Your task to perform on an android device: empty trash in the gmail app Image 0: 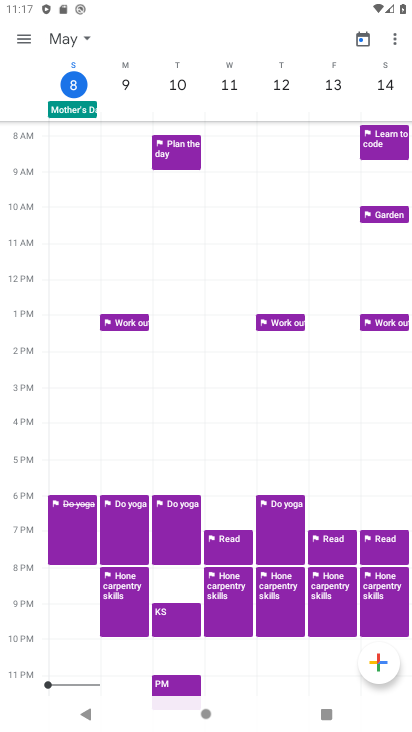
Step 0: press home button
Your task to perform on an android device: empty trash in the gmail app Image 1: 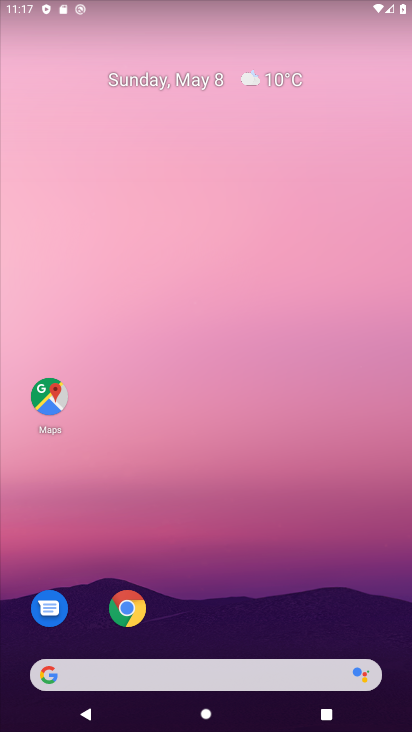
Step 1: drag from (190, 516) to (95, 49)
Your task to perform on an android device: empty trash in the gmail app Image 2: 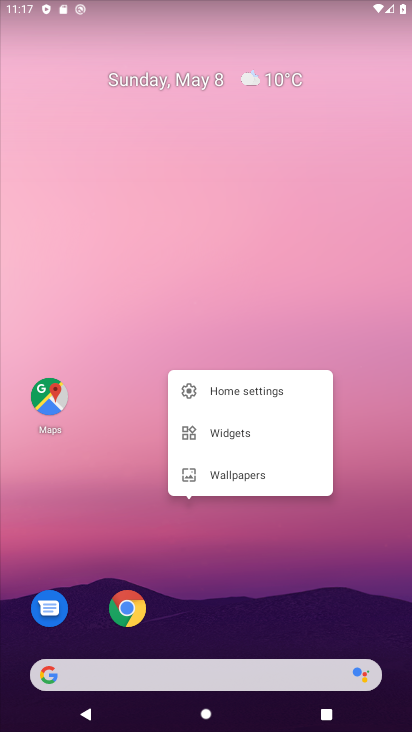
Step 2: click (220, 575)
Your task to perform on an android device: empty trash in the gmail app Image 3: 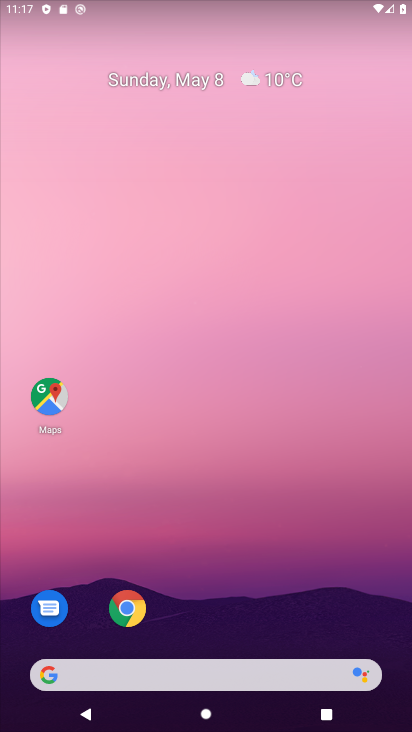
Step 3: drag from (220, 575) to (215, 71)
Your task to perform on an android device: empty trash in the gmail app Image 4: 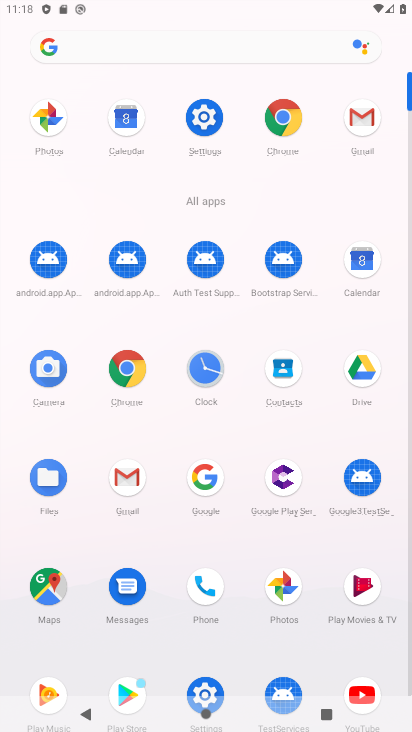
Step 4: click (357, 144)
Your task to perform on an android device: empty trash in the gmail app Image 5: 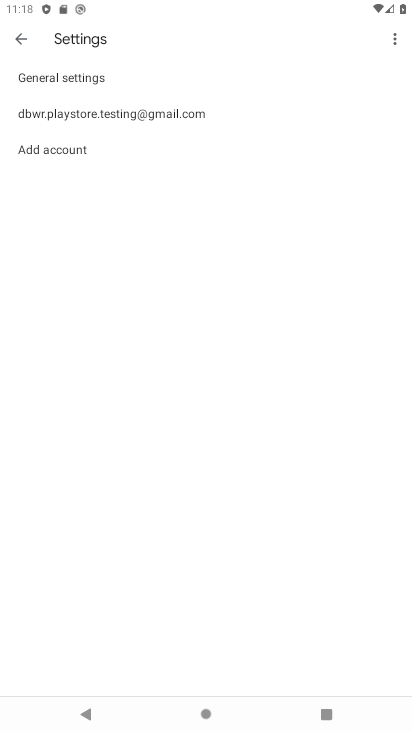
Step 5: click (11, 33)
Your task to perform on an android device: empty trash in the gmail app Image 6: 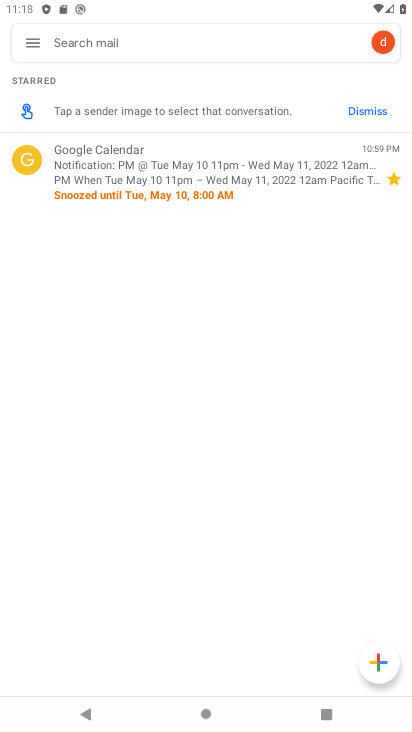
Step 6: click (32, 49)
Your task to perform on an android device: empty trash in the gmail app Image 7: 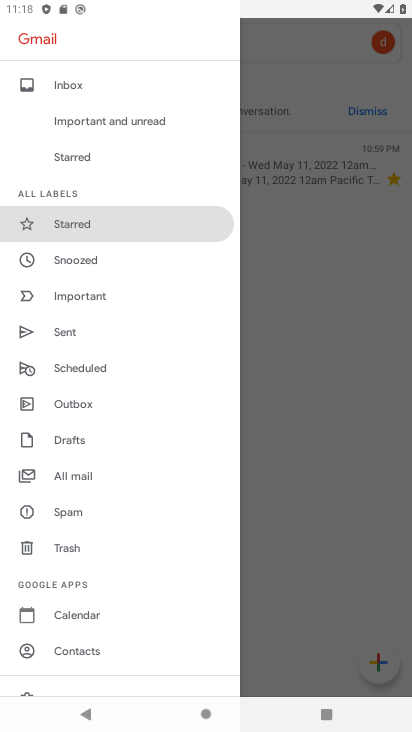
Step 7: drag from (96, 560) to (85, 270)
Your task to perform on an android device: empty trash in the gmail app Image 8: 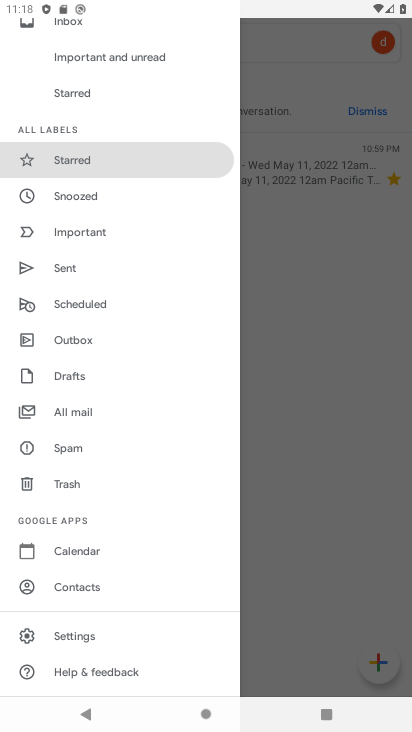
Step 8: click (94, 476)
Your task to perform on an android device: empty trash in the gmail app Image 9: 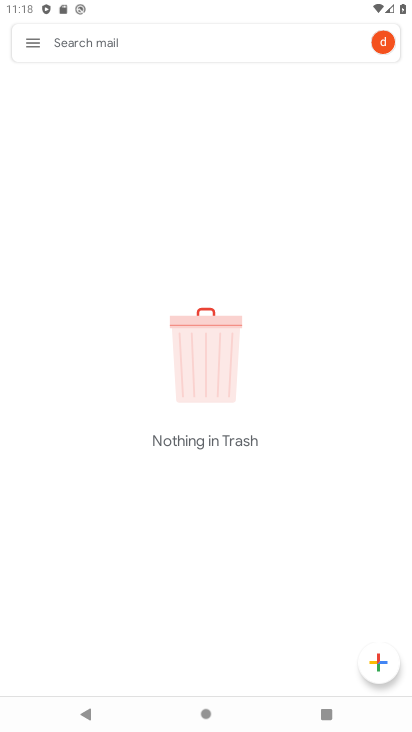
Step 9: task complete